Your task to perform on an android device: delete the emails in spam in the gmail app Image 0: 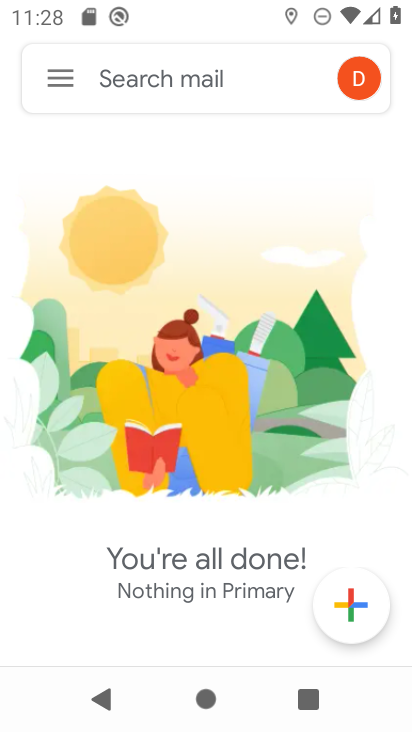
Step 0: click (63, 69)
Your task to perform on an android device: delete the emails in spam in the gmail app Image 1: 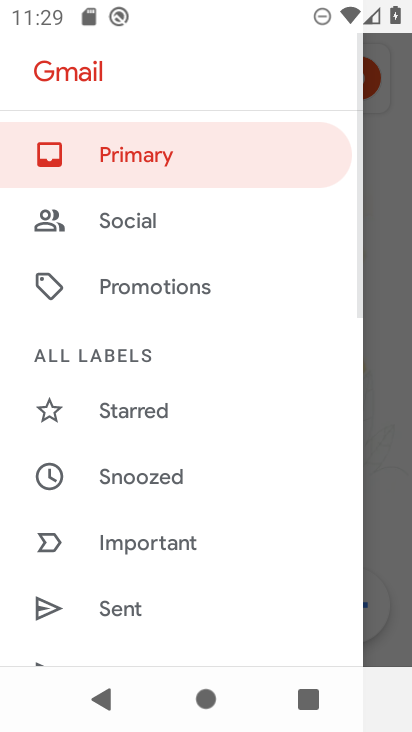
Step 1: drag from (241, 613) to (270, 329)
Your task to perform on an android device: delete the emails in spam in the gmail app Image 2: 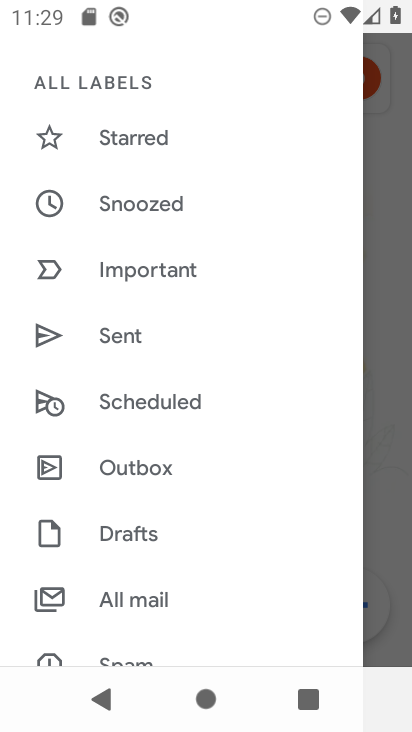
Step 2: drag from (271, 621) to (279, 399)
Your task to perform on an android device: delete the emails in spam in the gmail app Image 3: 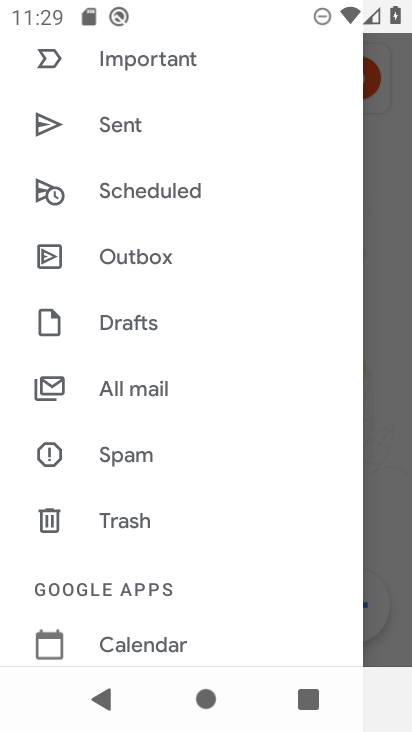
Step 3: click (268, 455)
Your task to perform on an android device: delete the emails in spam in the gmail app Image 4: 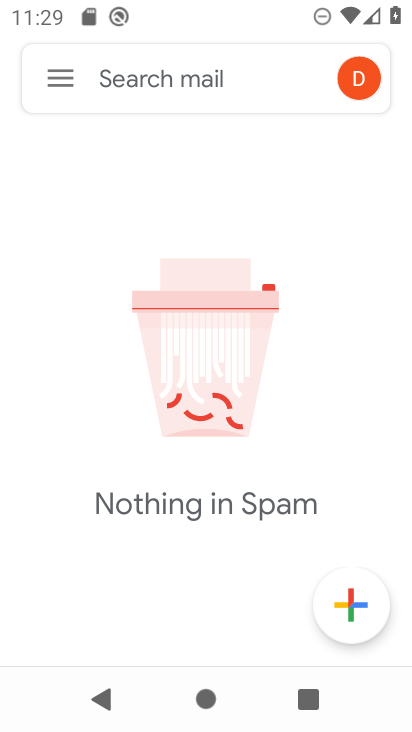
Step 4: task complete